Your task to perform on an android device: Open the web browser Image 0: 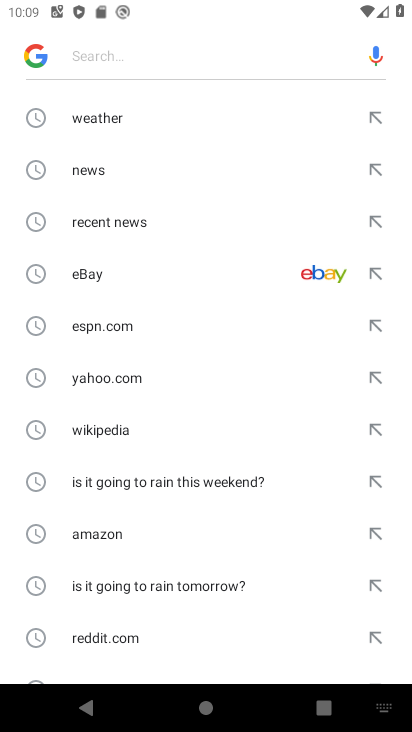
Step 0: press back button
Your task to perform on an android device: Open the web browser Image 1: 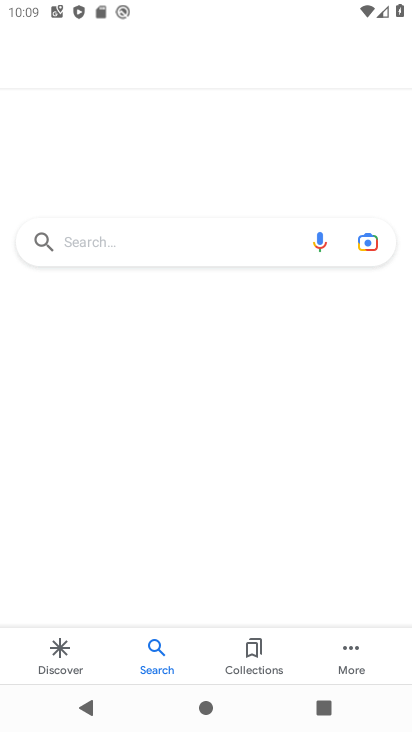
Step 1: click (186, 254)
Your task to perform on an android device: Open the web browser Image 2: 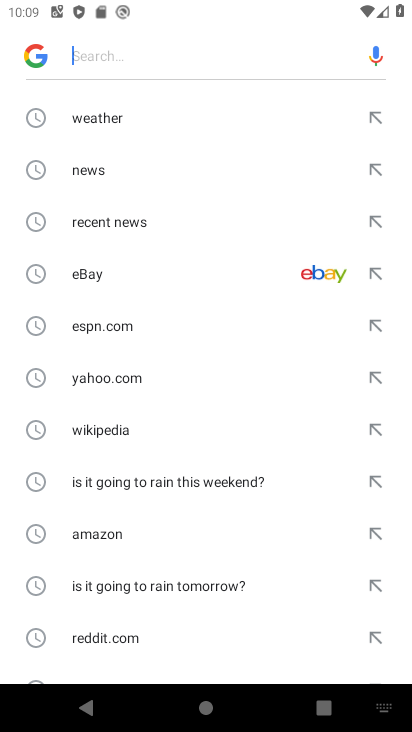
Step 2: task complete